Your task to perform on an android device: refresh tabs in the chrome app Image 0: 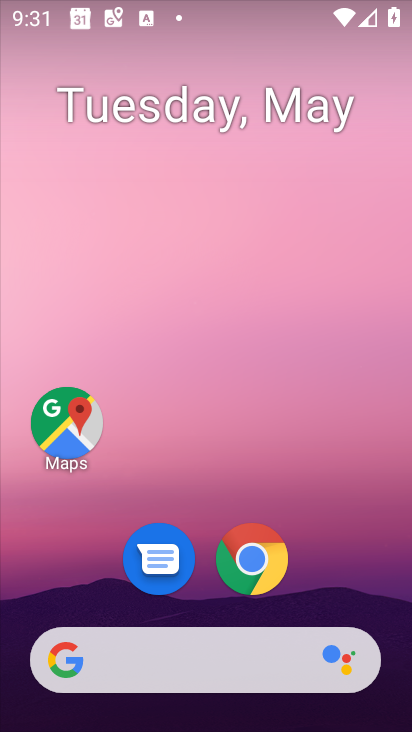
Step 0: click (248, 568)
Your task to perform on an android device: refresh tabs in the chrome app Image 1: 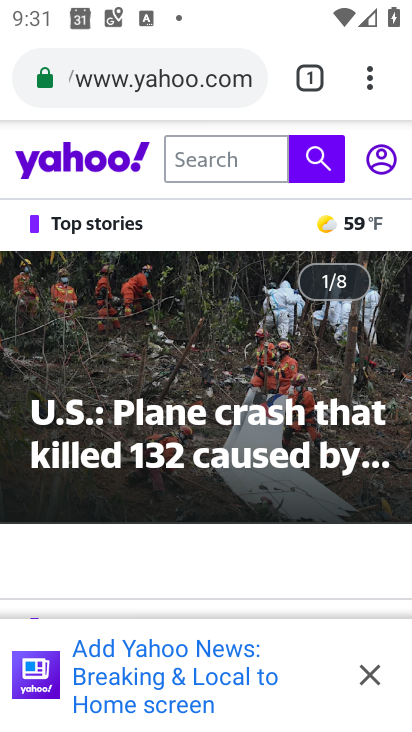
Step 1: click (373, 79)
Your task to perform on an android device: refresh tabs in the chrome app Image 2: 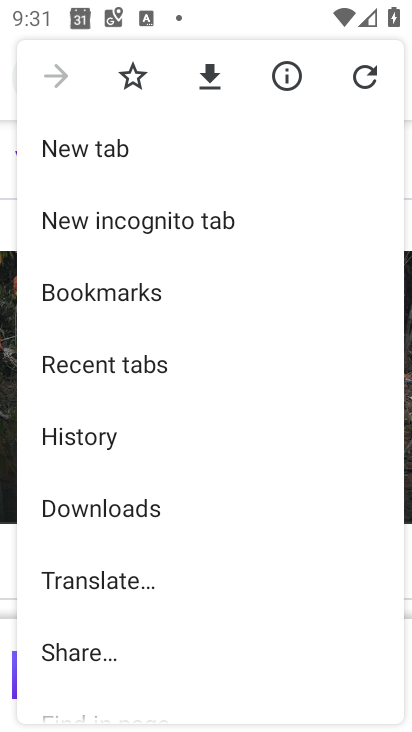
Step 2: click (358, 72)
Your task to perform on an android device: refresh tabs in the chrome app Image 3: 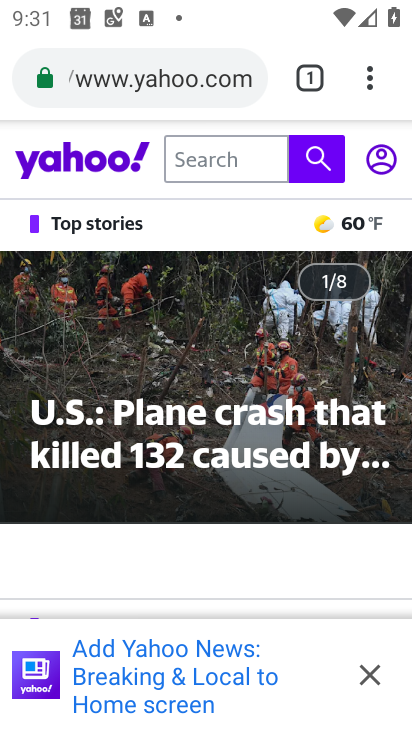
Step 3: task complete